Your task to perform on an android device: delete the emails in spam in the gmail app Image 0: 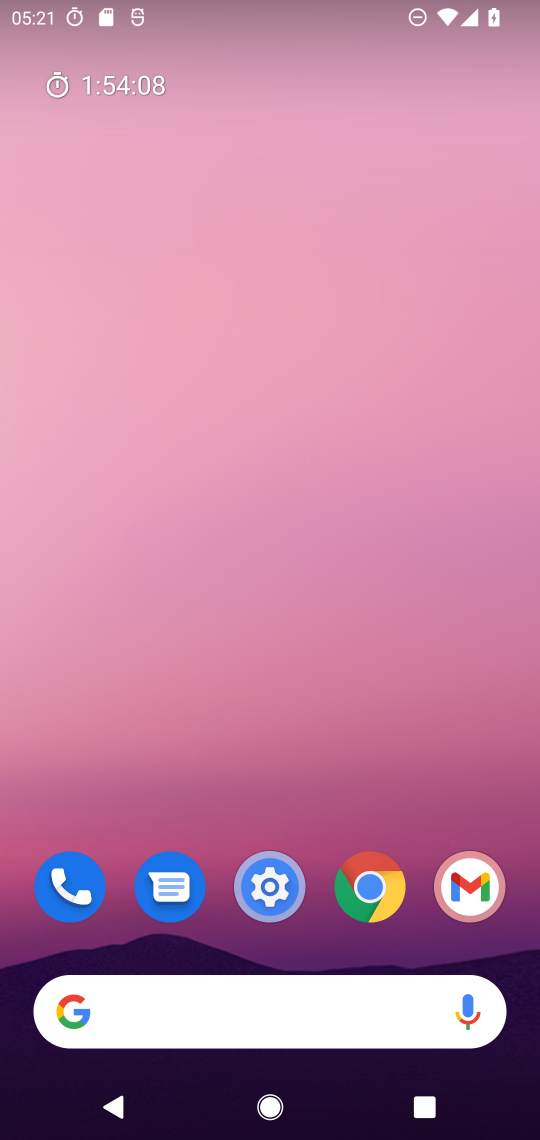
Step 0: press home button
Your task to perform on an android device: delete the emails in spam in the gmail app Image 1: 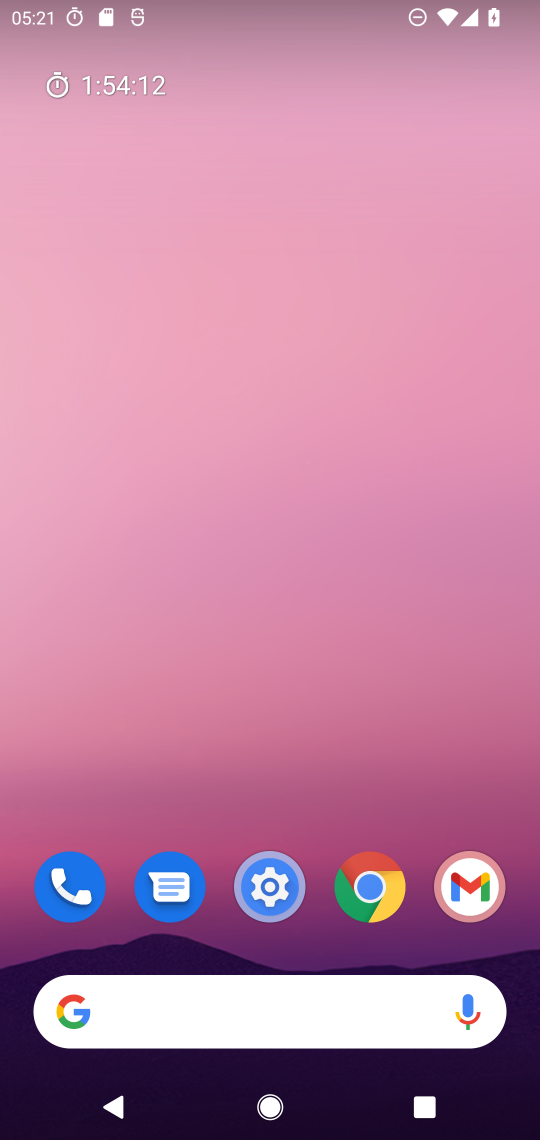
Step 1: drag from (405, 733) to (445, 247)
Your task to perform on an android device: delete the emails in spam in the gmail app Image 2: 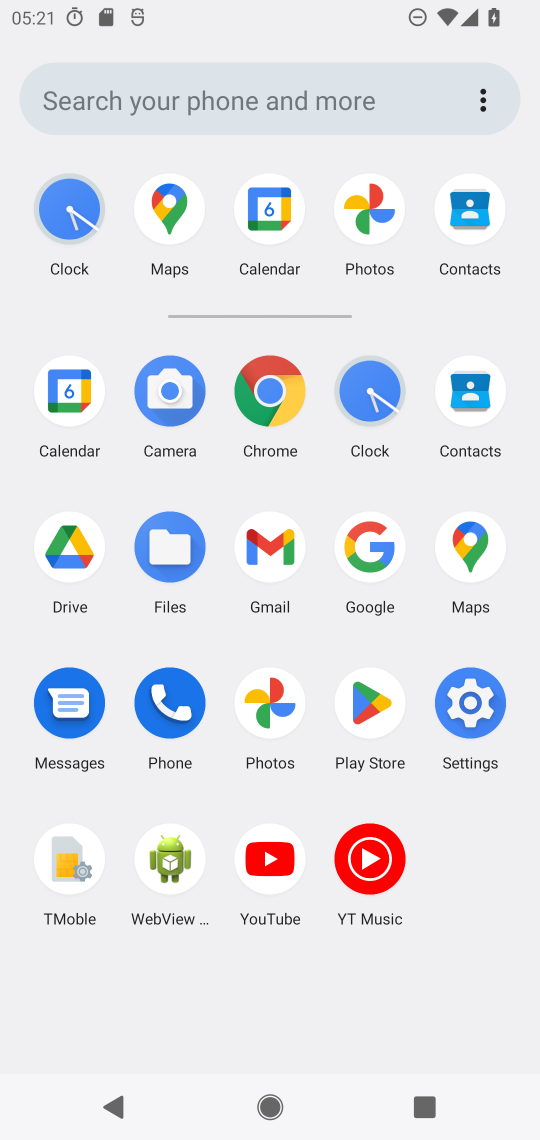
Step 2: click (271, 553)
Your task to perform on an android device: delete the emails in spam in the gmail app Image 3: 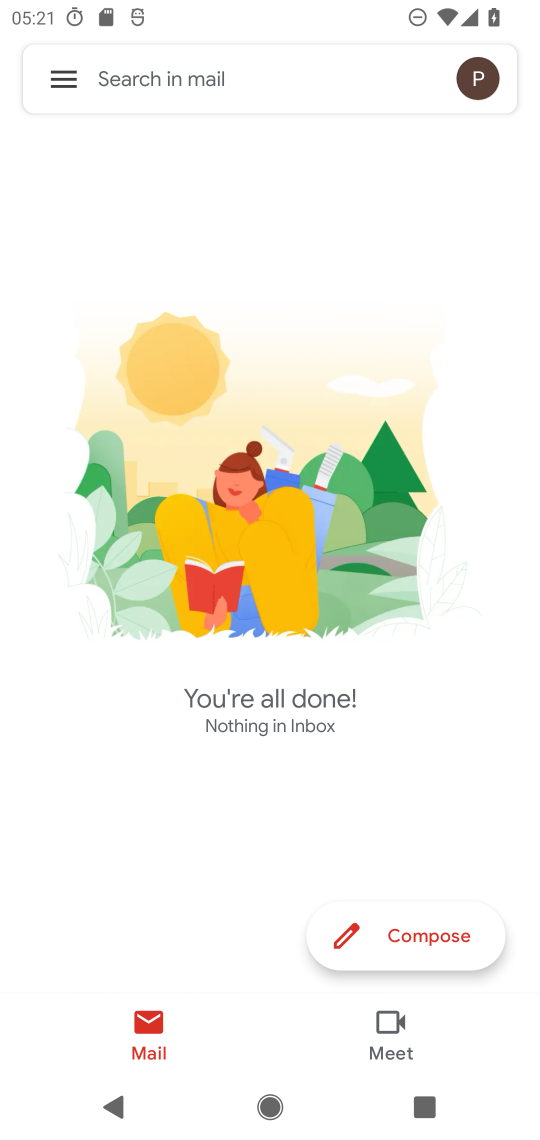
Step 3: click (66, 80)
Your task to perform on an android device: delete the emails in spam in the gmail app Image 4: 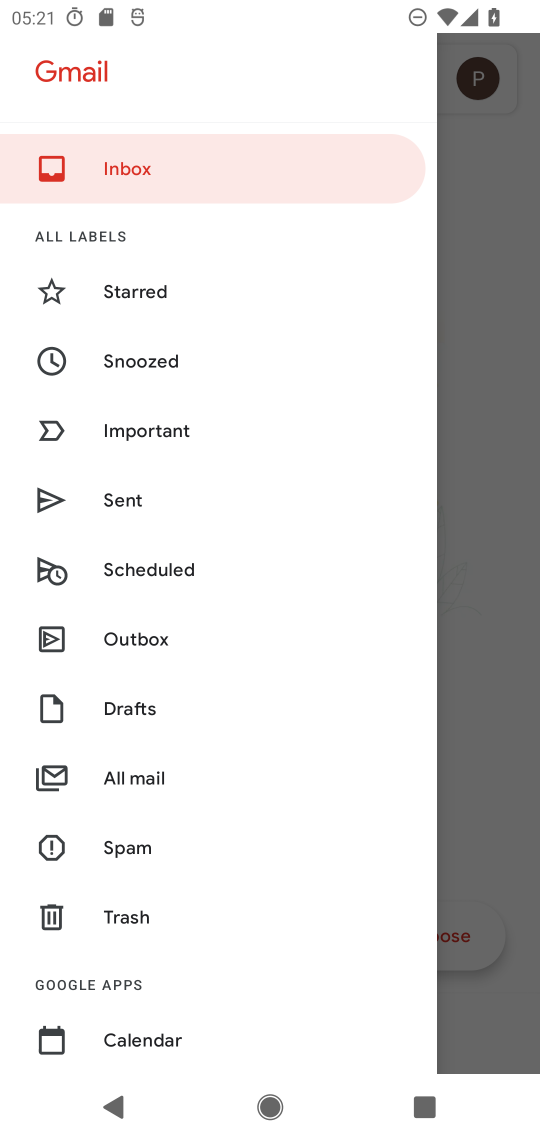
Step 4: drag from (283, 702) to (316, 572)
Your task to perform on an android device: delete the emails in spam in the gmail app Image 5: 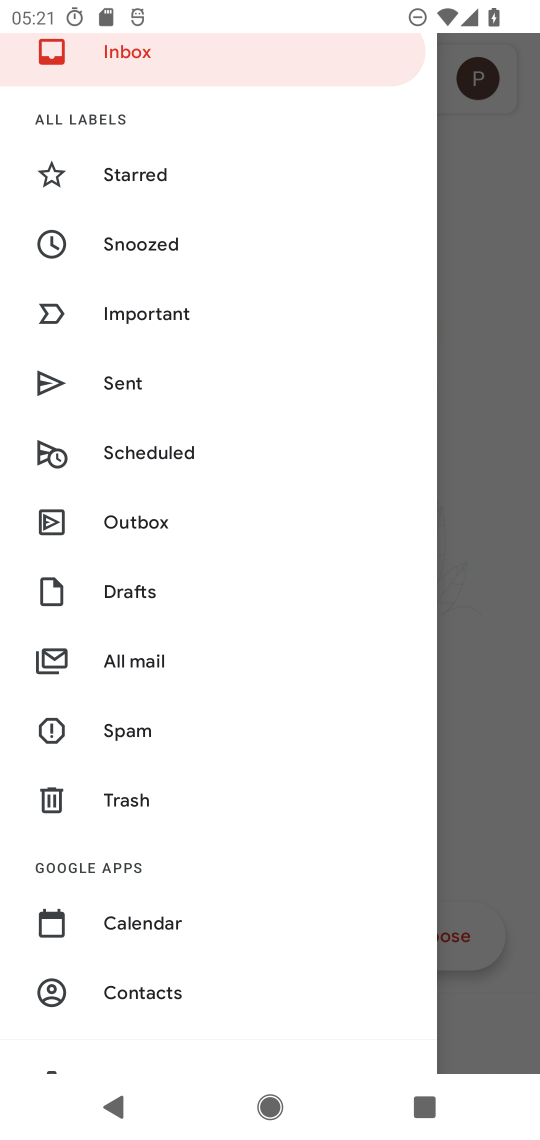
Step 5: drag from (287, 802) to (317, 597)
Your task to perform on an android device: delete the emails in spam in the gmail app Image 6: 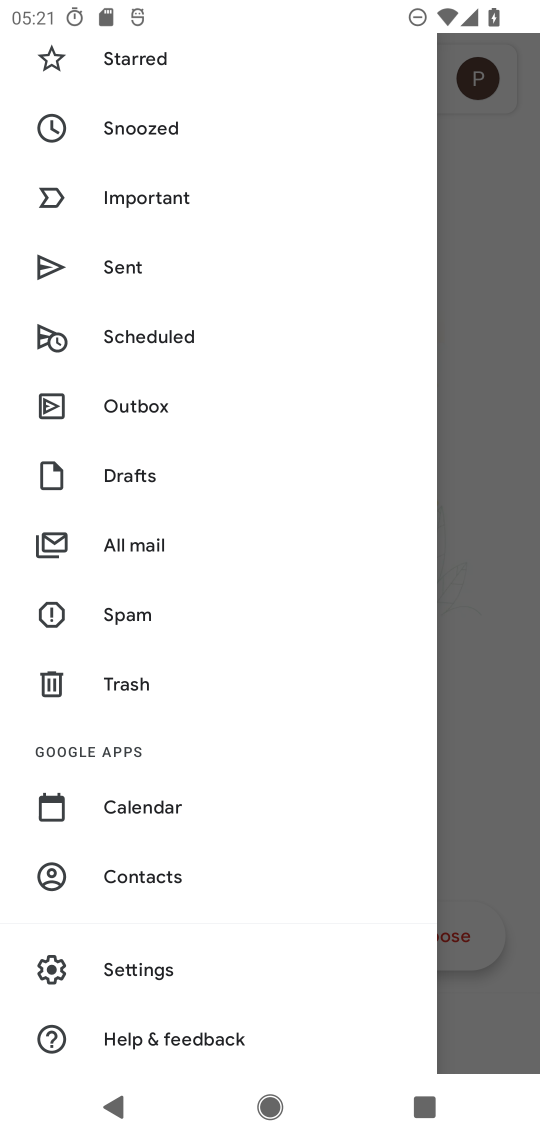
Step 6: drag from (283, 776) to (287, 483)
Your task to perform on an android device: delete the emails in spam in the gmail app Image 7: 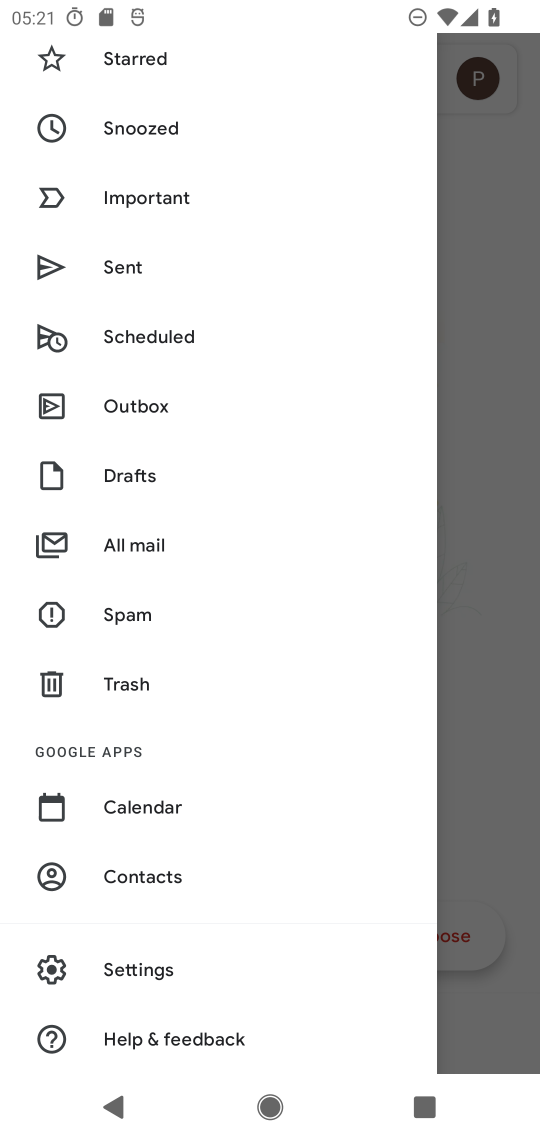
Step 7: click (179, 607)
Your task to perform on an android device: delete the emails in spam in the gmail app Image 8: 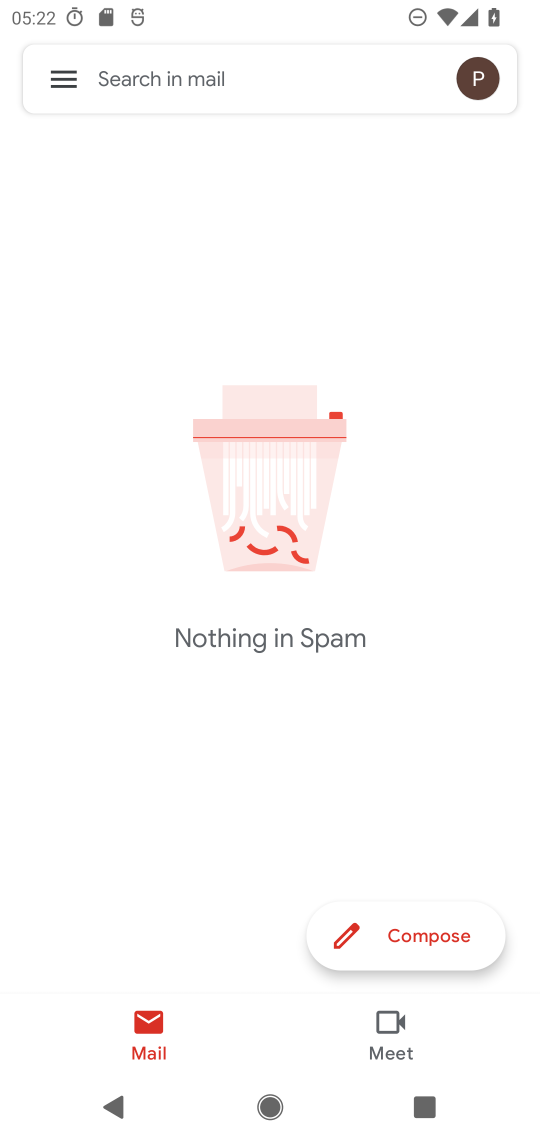
Step 8: task complete